Your task to perform on an android device: Open the Play Movies app and select the watchlist tab. Image 0: 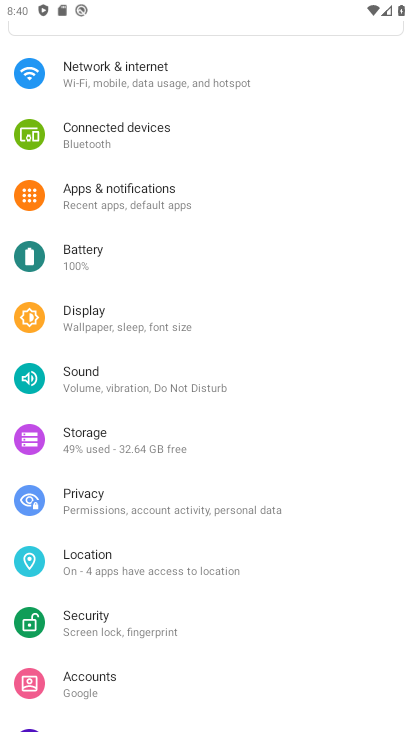
Step 0: press home button
Your task to perform on an android device: Open the Play Movies app and select the watchlist tab. Image 1: 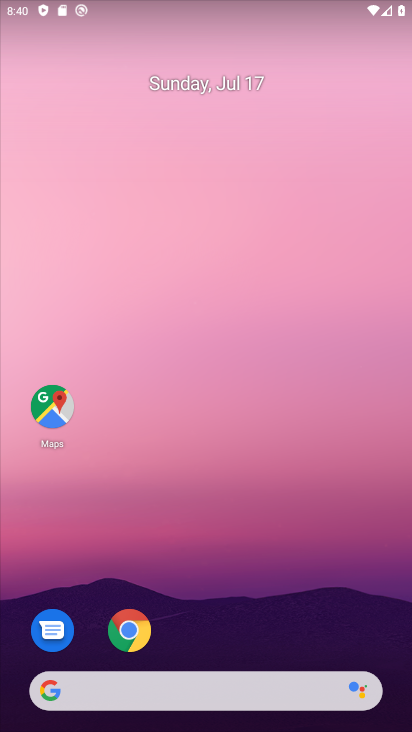
Step 1: drag from (245, 642) to (233, 400)
Your task to perform on an android device: Open the Play Movies app and select the watchlist tab. Image 2: 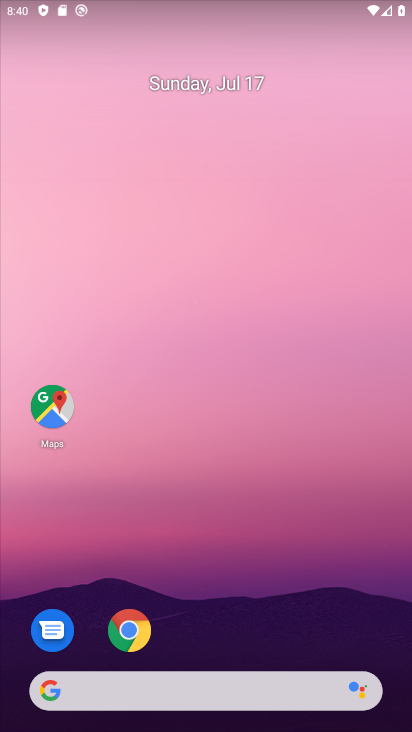
Step 2: click (148, 630)
Your task to perform on an android device: Open the Play Movies app and select the watchlist tab. Image 3: 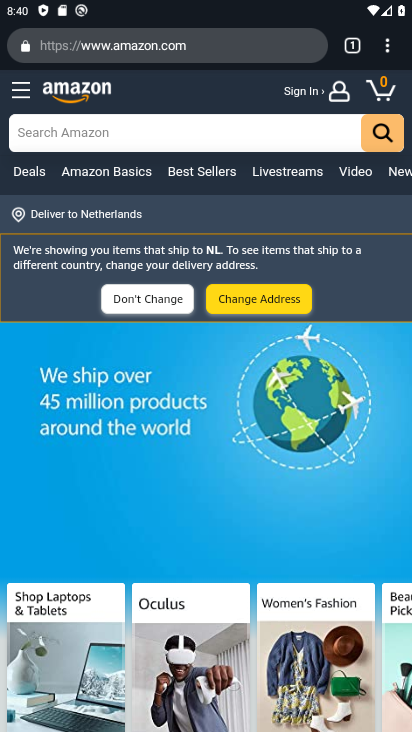
Step 3: press home button
Your task to perform on an android device: Open the Play Movies app and select the watchlist tab. Image 4: 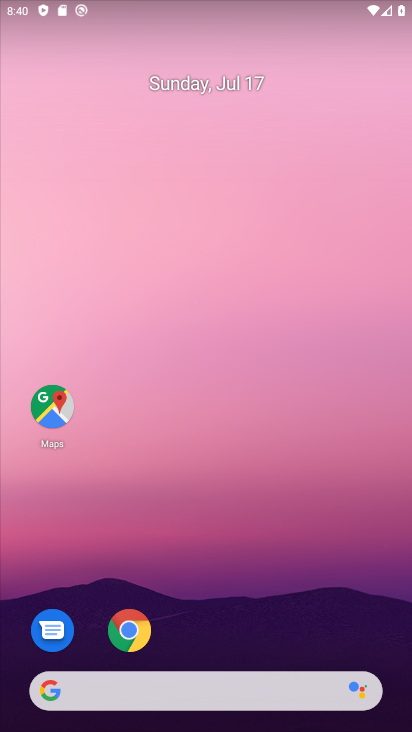
Step 4: drag from (276, 640) to (251, 73)
Your task to perform on an android device: Open the Play Movies app and select the watchlist tab. Image 5: 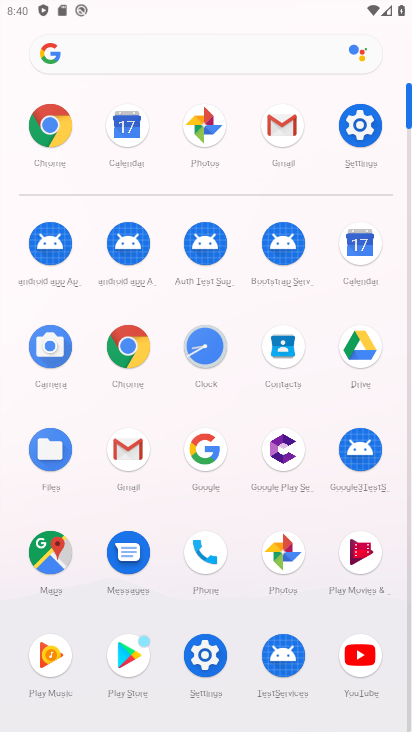
Step 5: click (366, 547)
Your task to perform on an android device: Open the Play Movies app and select the watchlist tab. Image 6: 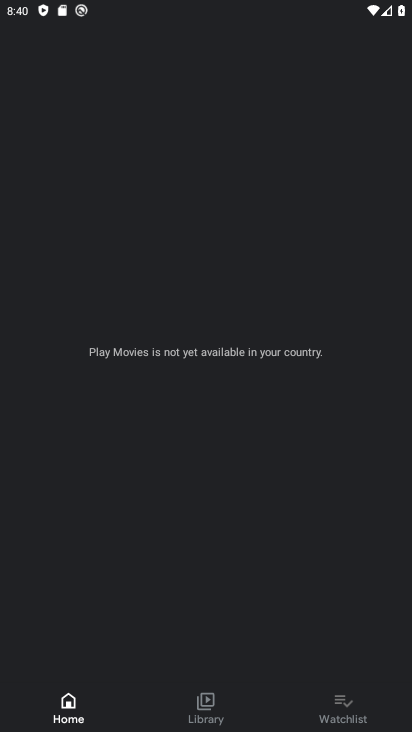
Step 6: click (331, 694)
Your task to perform on an android device: Open the Play Movies app and select the watchlist tab. Image 7: 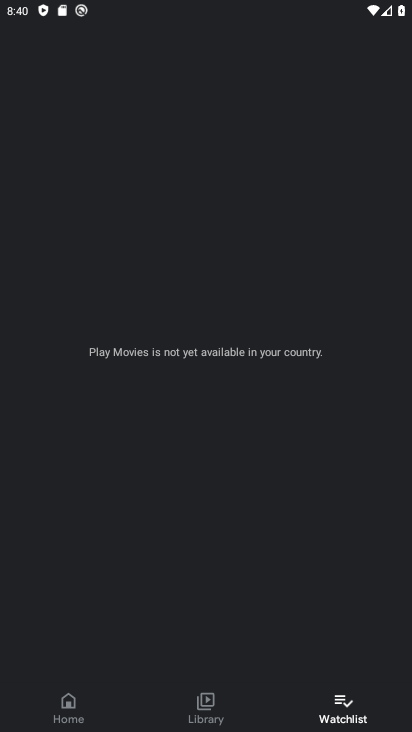
Step 7: task complete